Your task to perform on an android device: turn on wifi Image 0: 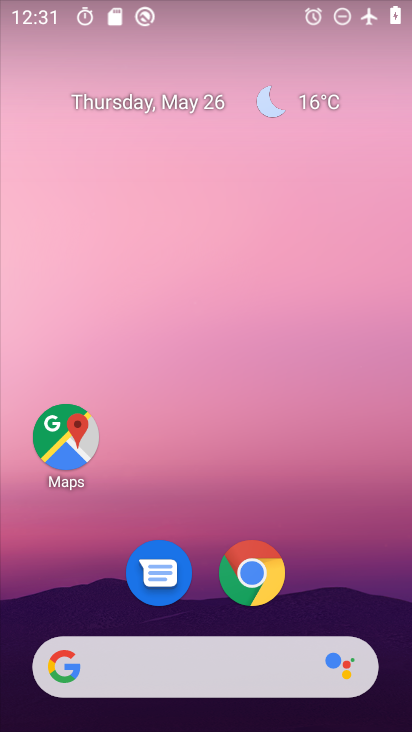
Step 0: drag from (365, 626) to (361, 26)
Your task to perform on an android device: turn on wifi Image 1: 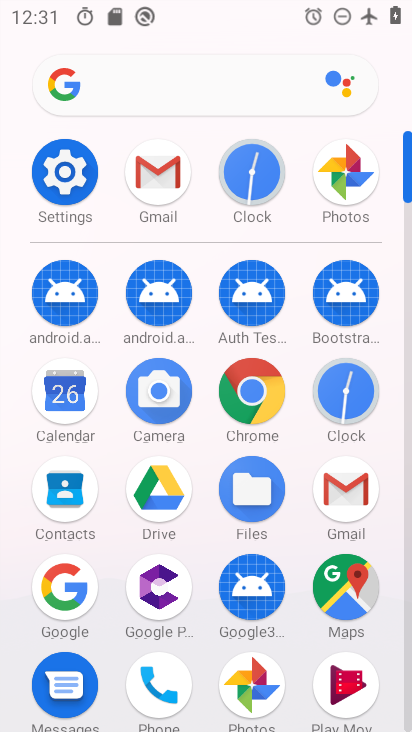
Step 1: click (57, 172)
Your task to perform on an android device: turn on wifi Image 2: 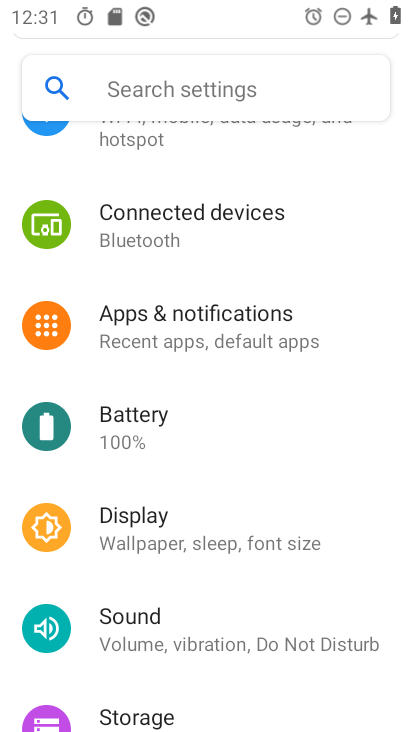
Step 2: drag from (322, 177) to (332, 407)
Your task to perform on an android device: turn on wifi Image 3: 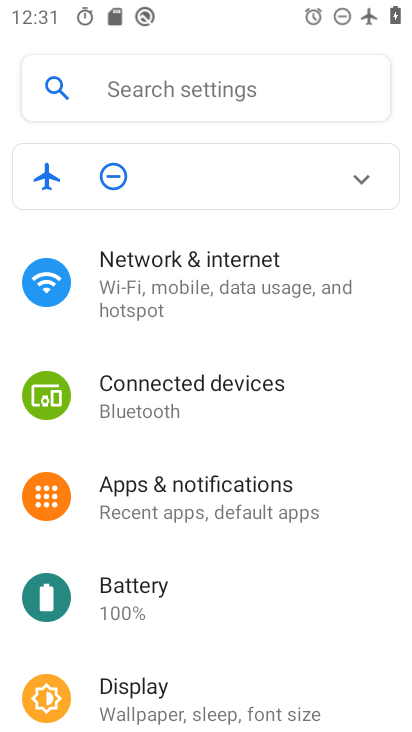
Step 3: click (156, 283)
Your task to perform on an android device: turn on wifi Image 4: 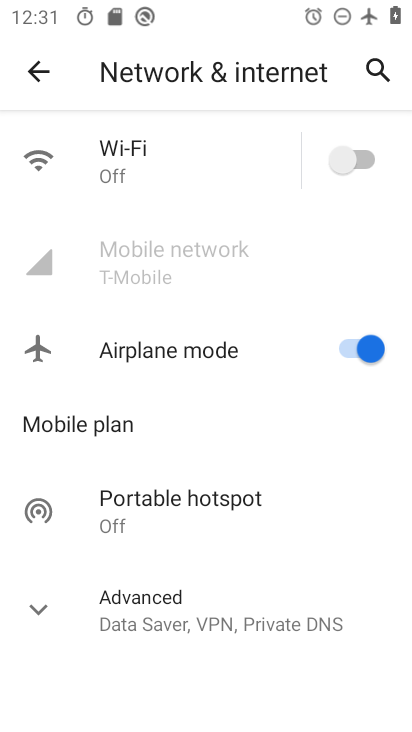
Step 4: click (347, 156)
Your task to perform on an android device: turn on wifi Image 5: 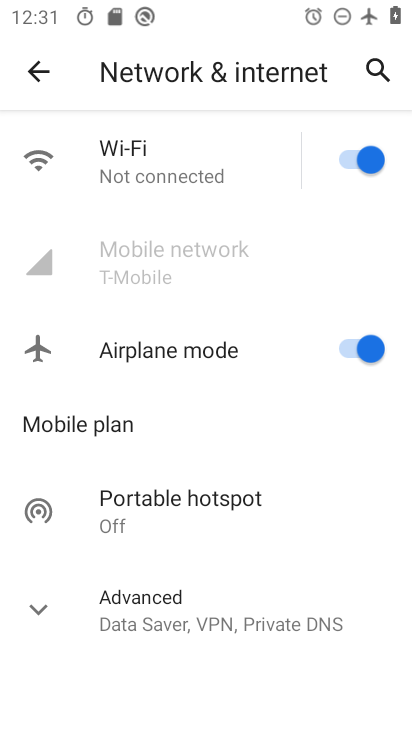
Step 5: task complete